Your task to perform on an android device: toggle improve location accuracy Image 0: 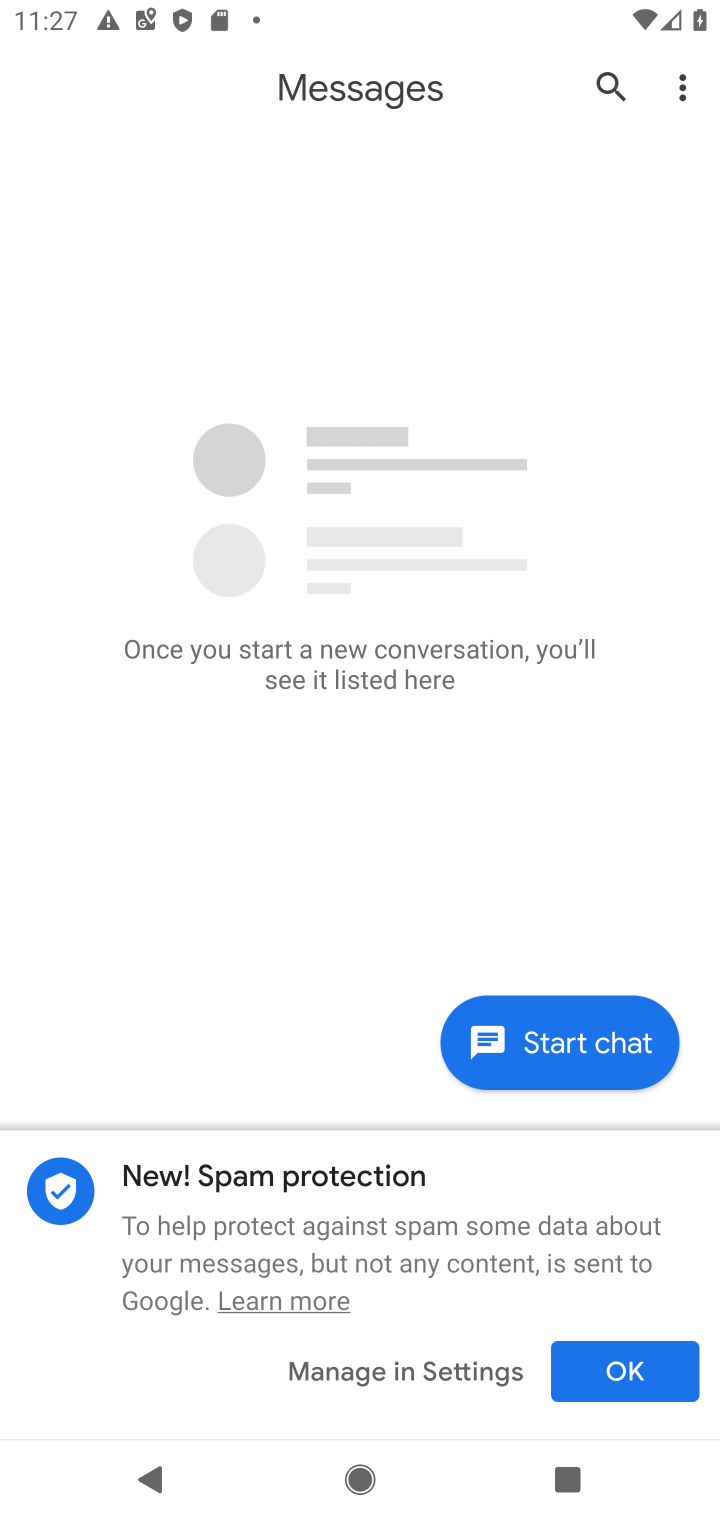
Step 0: press home button
Your task to perform on an android device: toggle improve location accuracy Image 1: 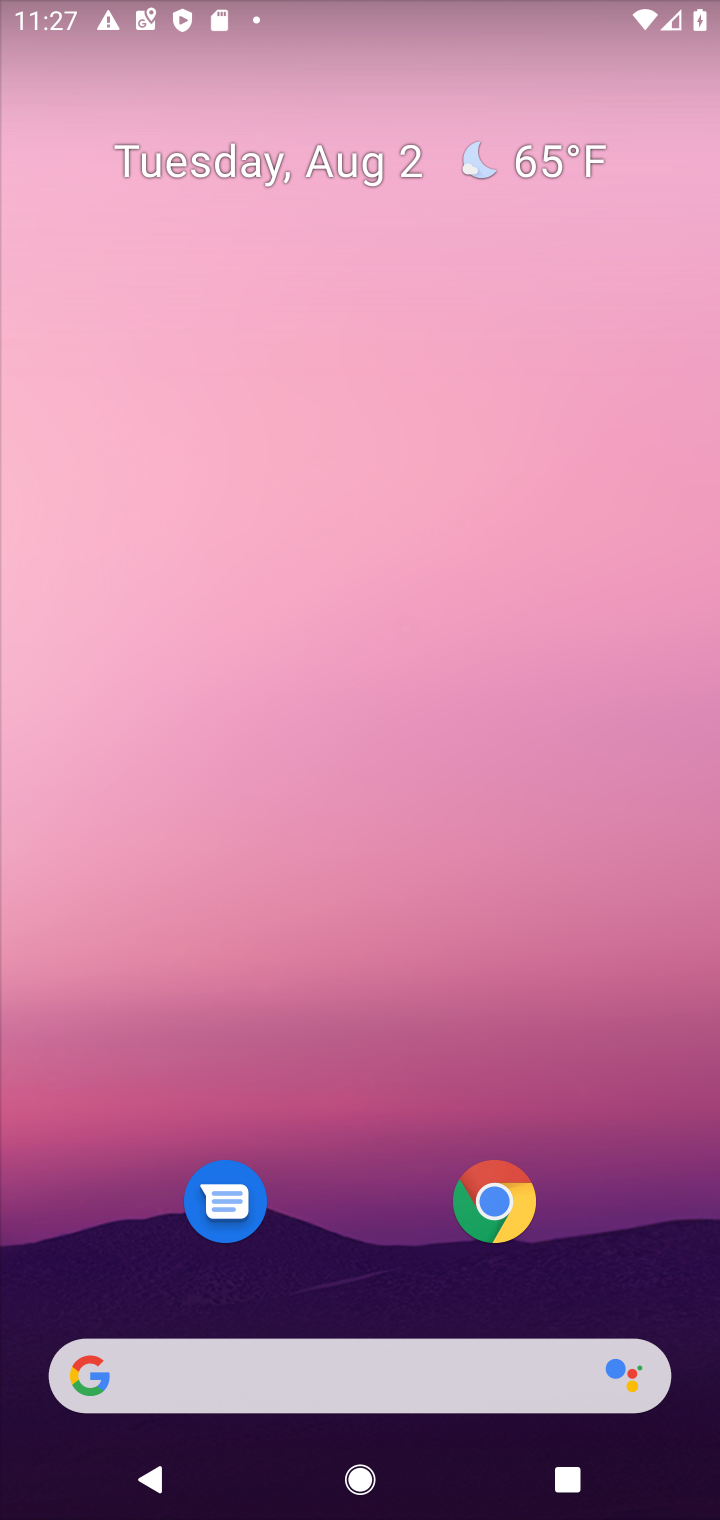
Step 1: drag from (323, 1304) to (195, 64)
Your task to perform on an android device: toggle improve location accuracy Image 2: 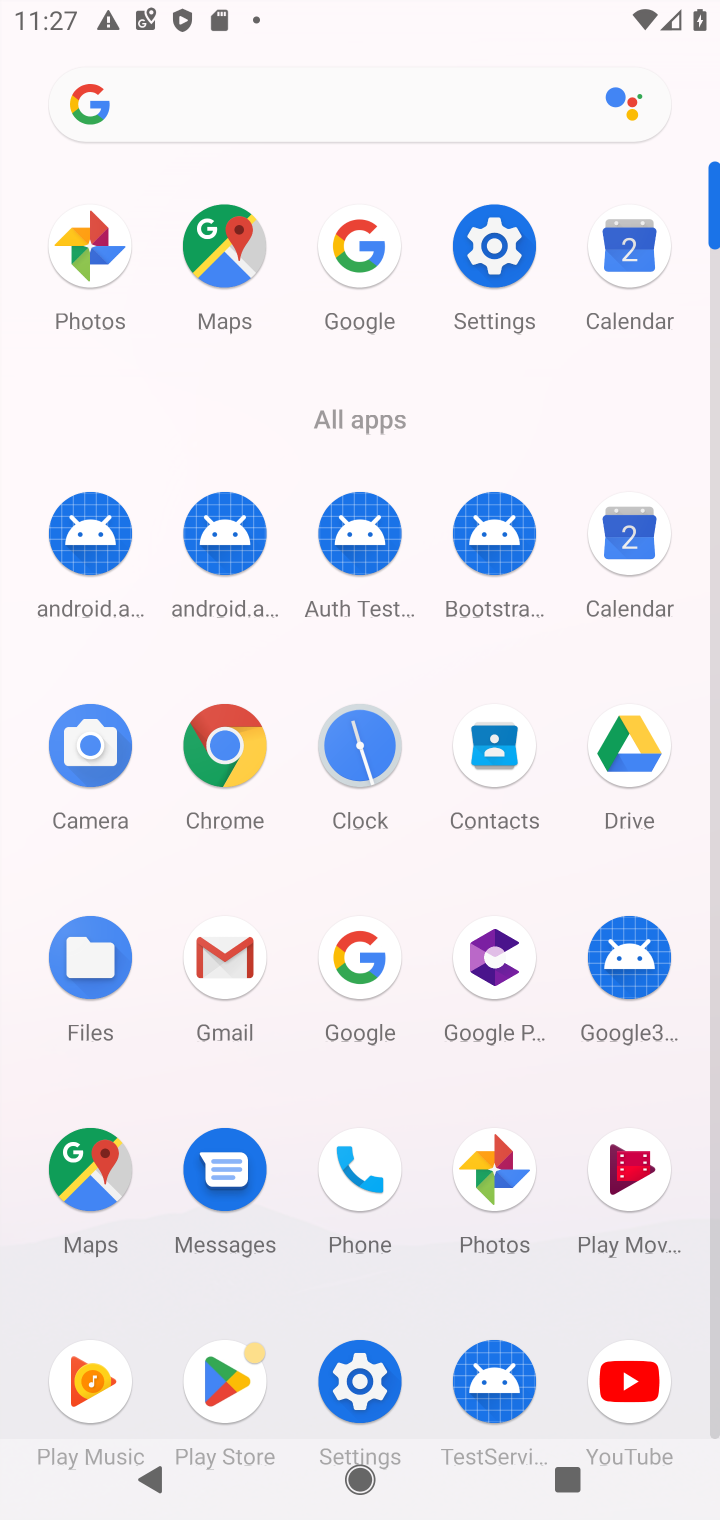
Step 2: click (488, 285)
Your task to perform on an android device: toggle improve location accuracy Image 3: 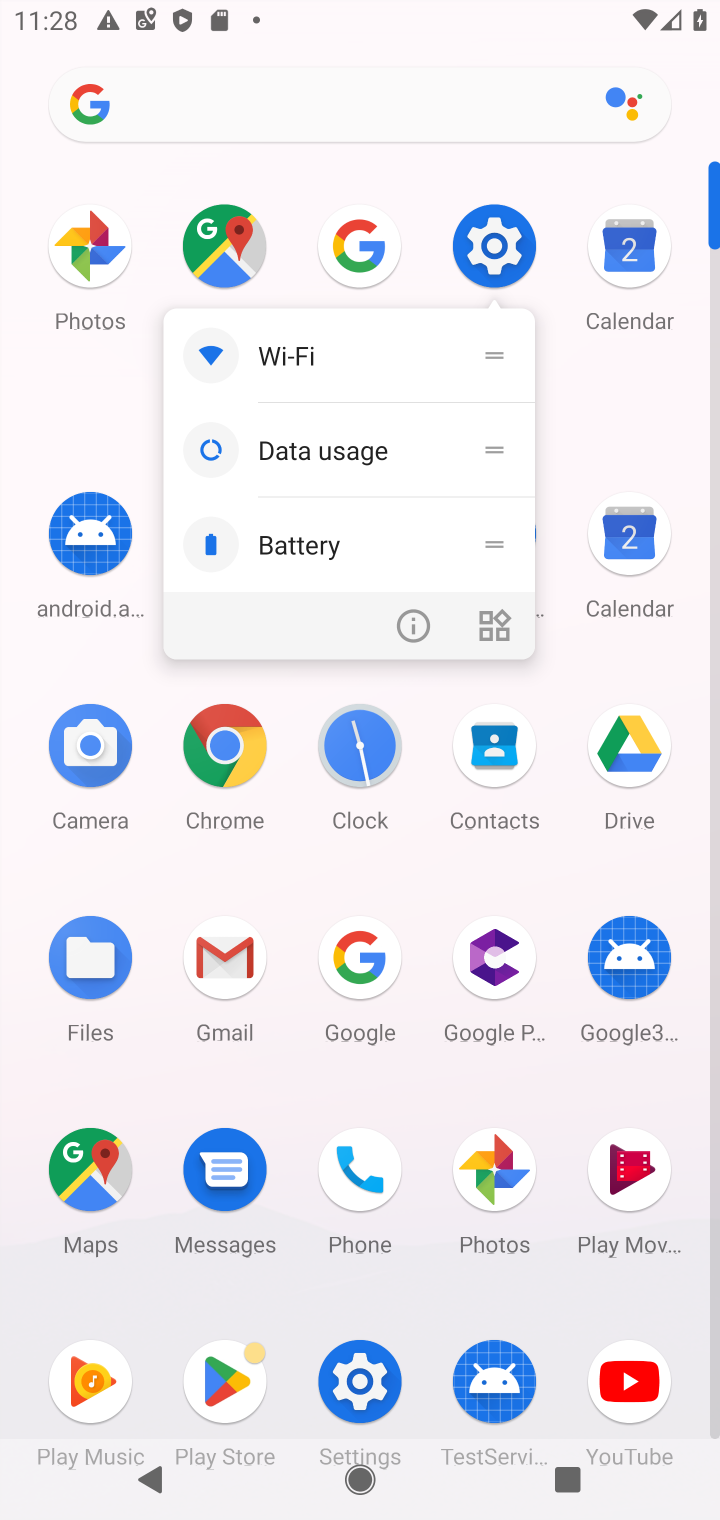
Step 3: click (324, 1356)
Your task to perform on an android device: toggle improve location accuracy Image 4: 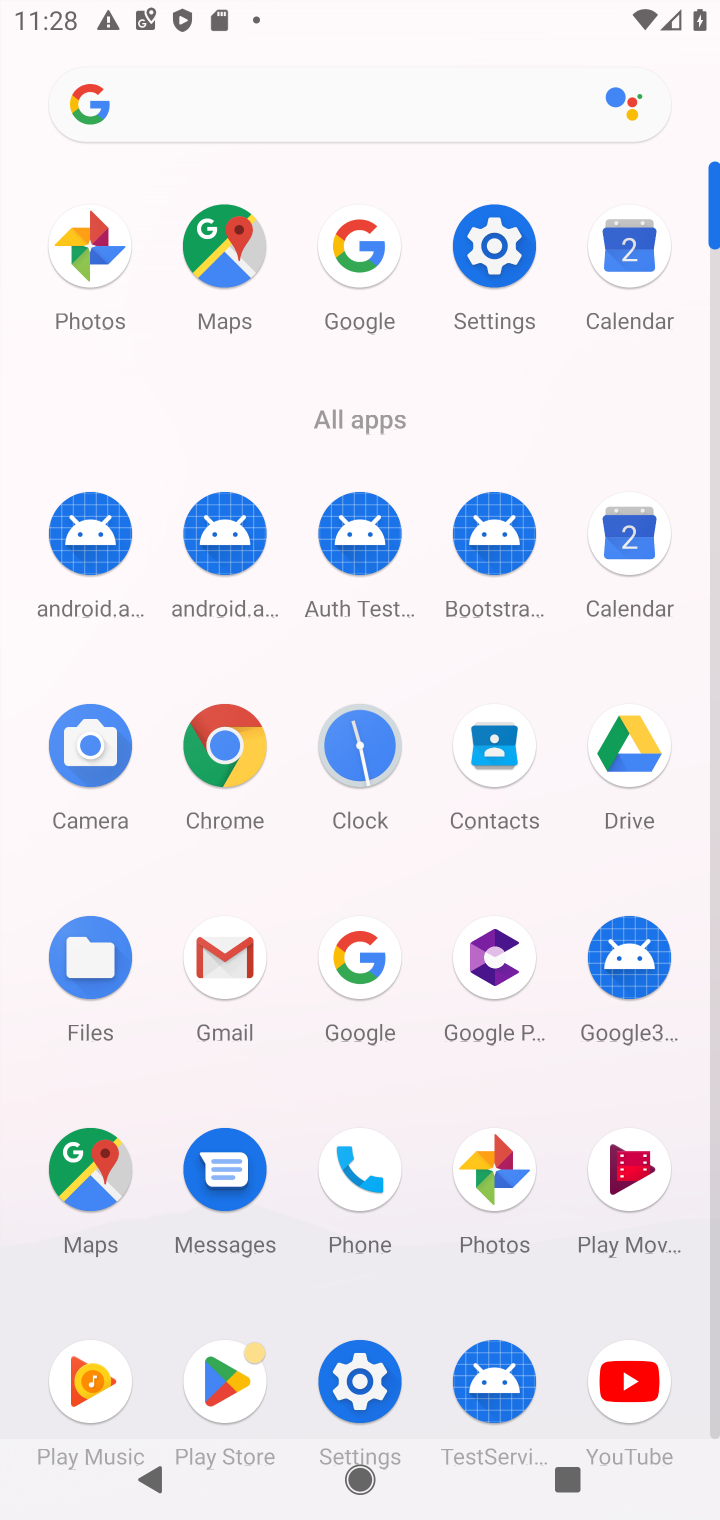
Step 4: click (349, 1369)
Your task to perform on an android device: toggle improve location accuracy Image 5: 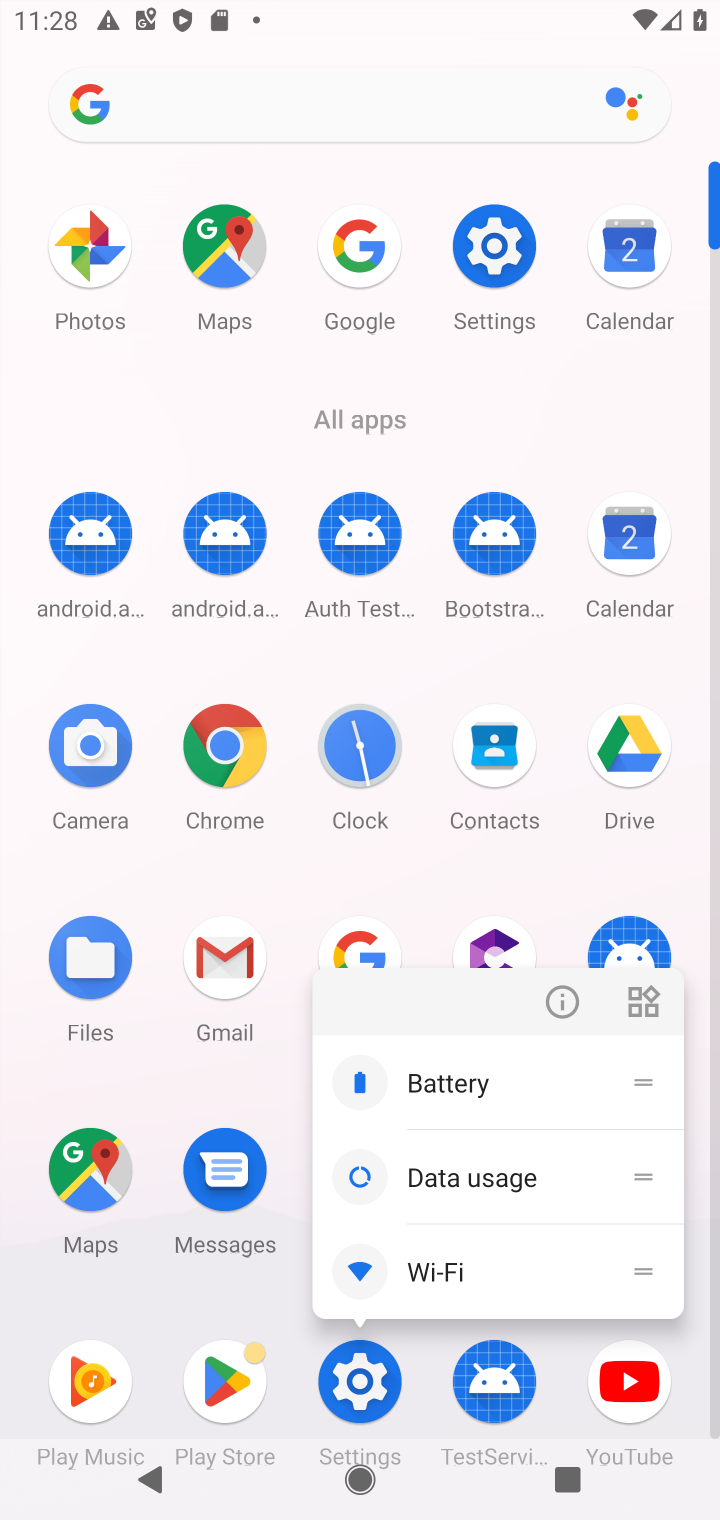
Step 5: click (356, 1367)
Your task to perform on an android device: toggle improve location accuracy Image 6: 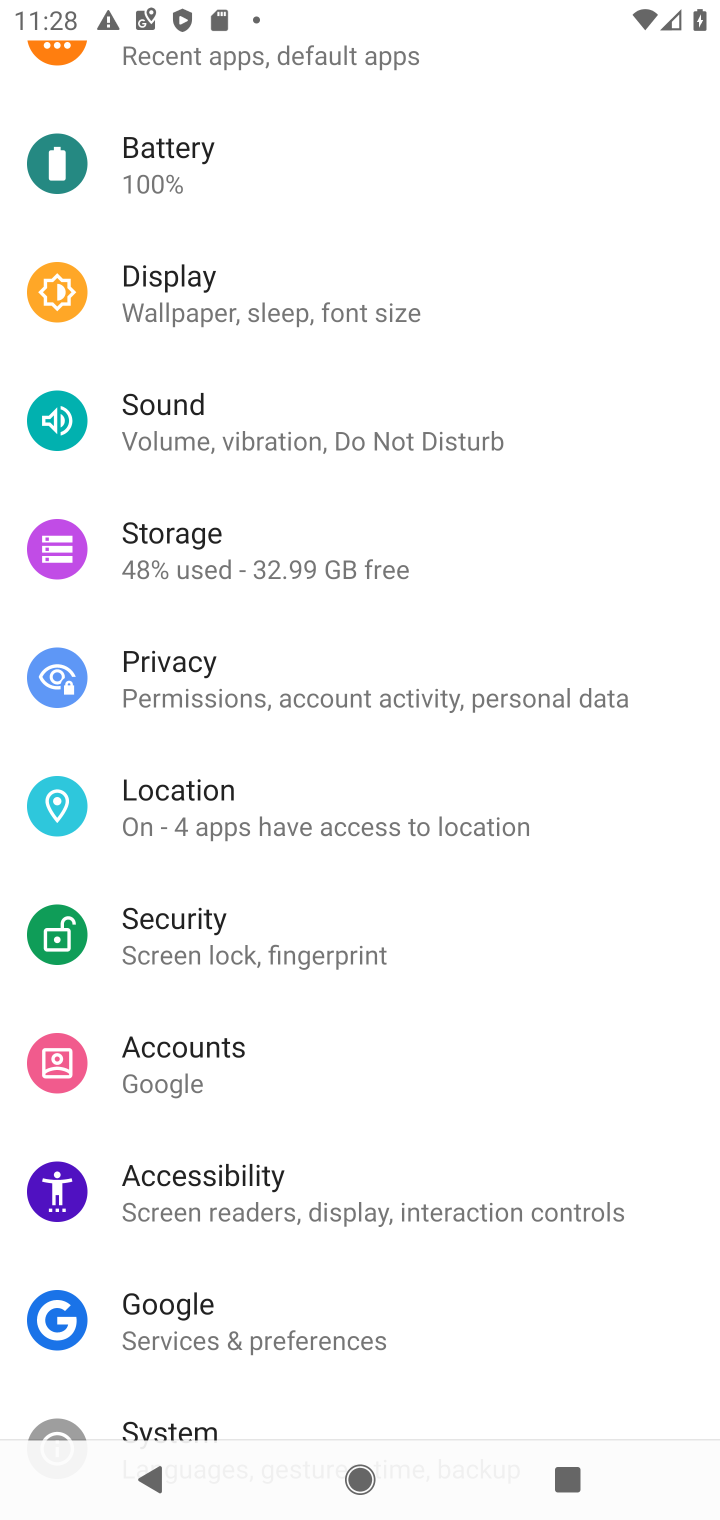
Step 6: drag from (386, 519) to (363, 791)
Your task to perform on an android device: toggle improve location accuracy Image 7: 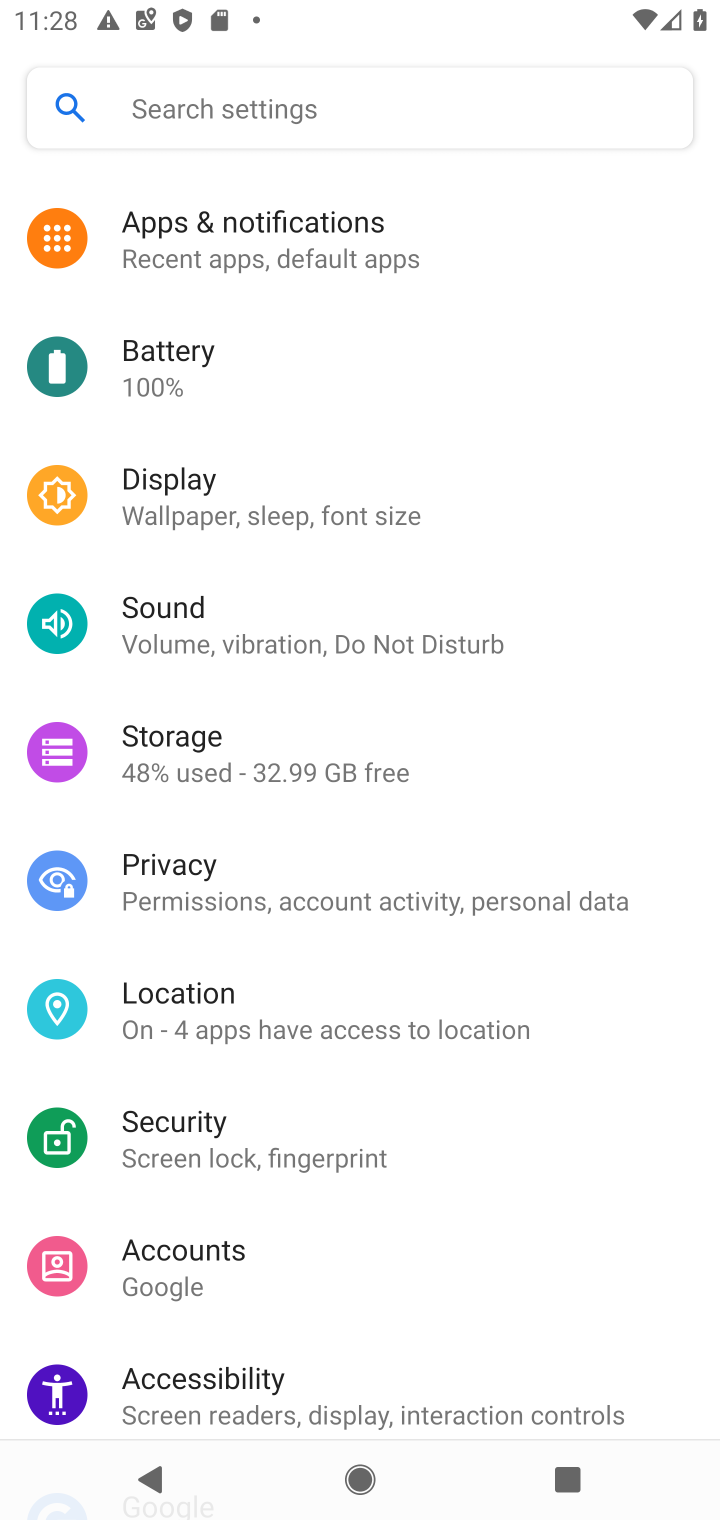
Step 7: click (148, 1024)
Your task to perform on an android device: toggle improve location accuracy Image 8: 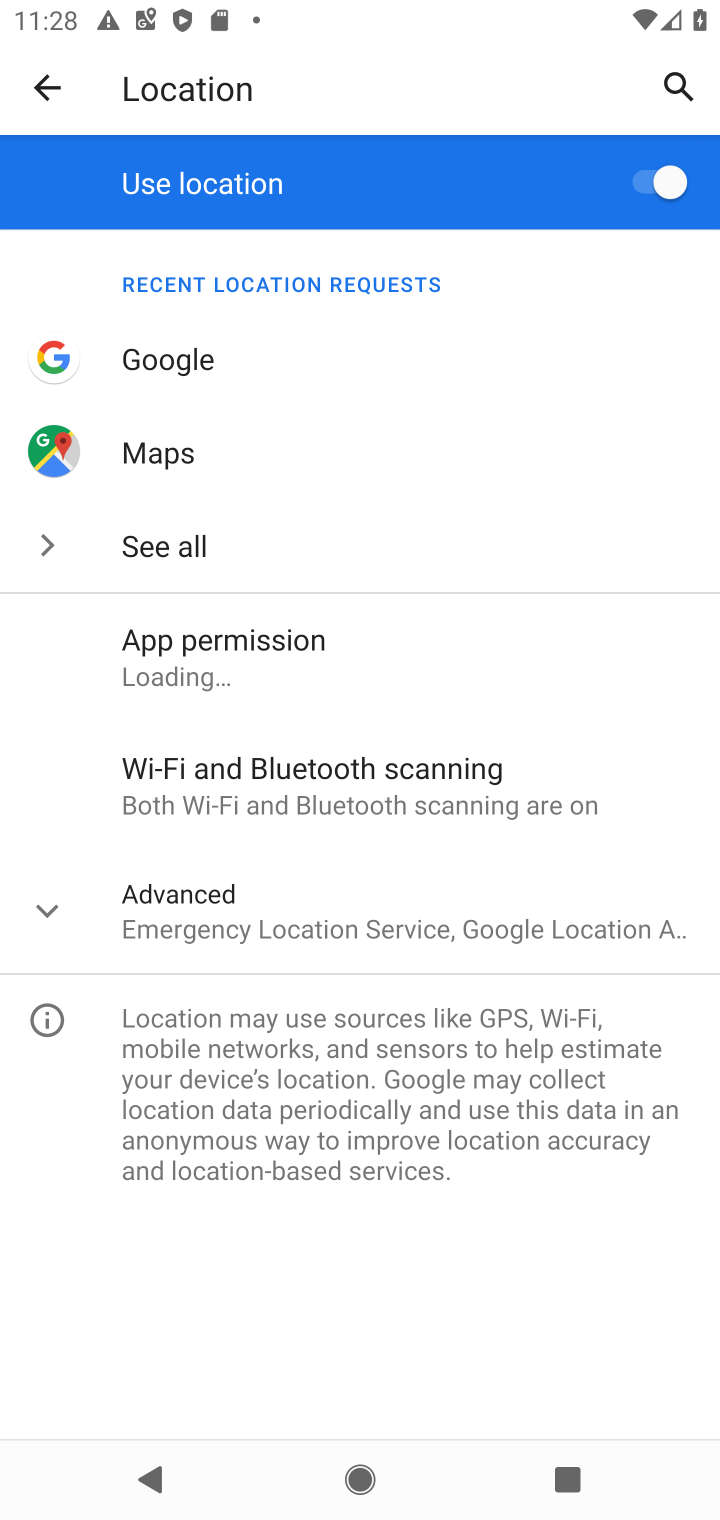
Step 8: click (247, 906)
Your task to perform on an android device: toggle improve location accuracy Image 9: 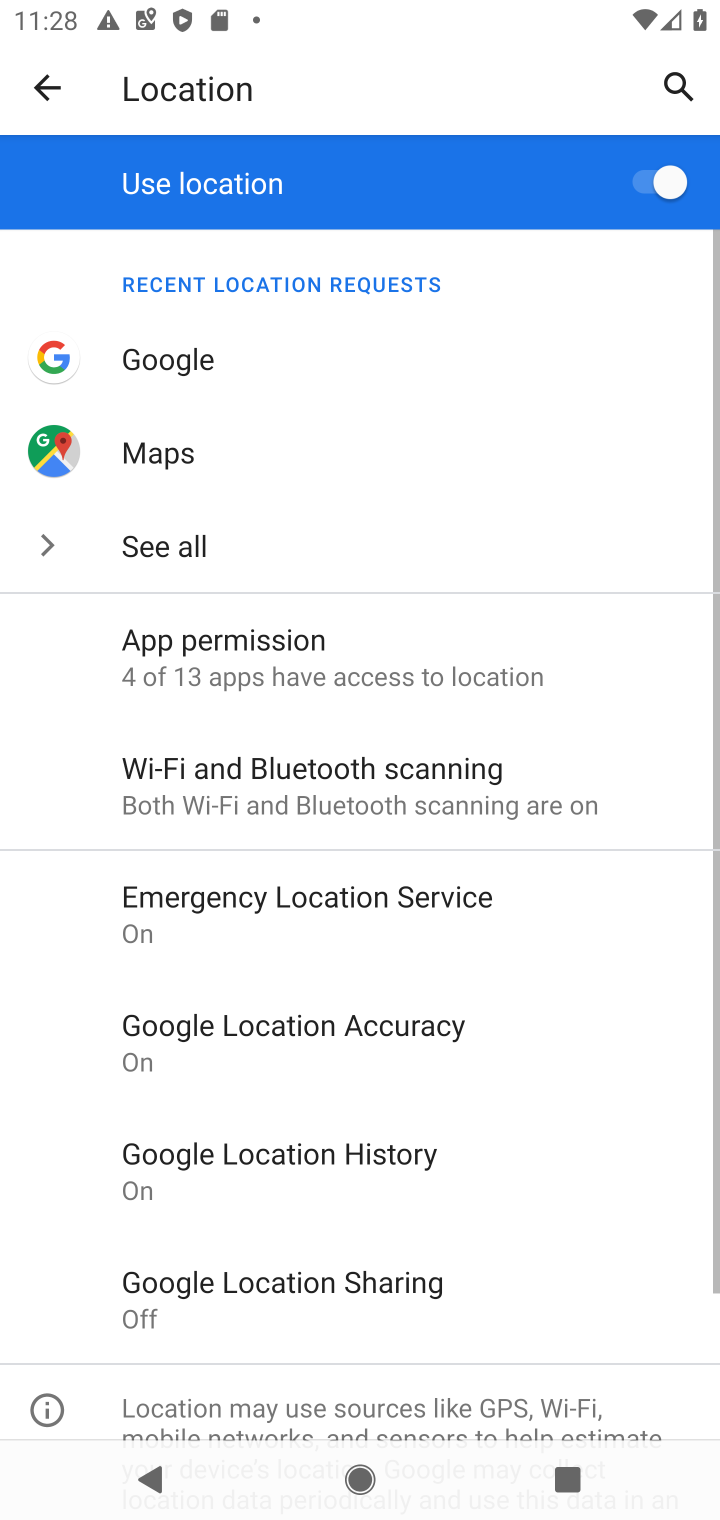
Step 9: click (429, 1026)
Your task to perform on an android device: toggle improve location accuracy Image 10: 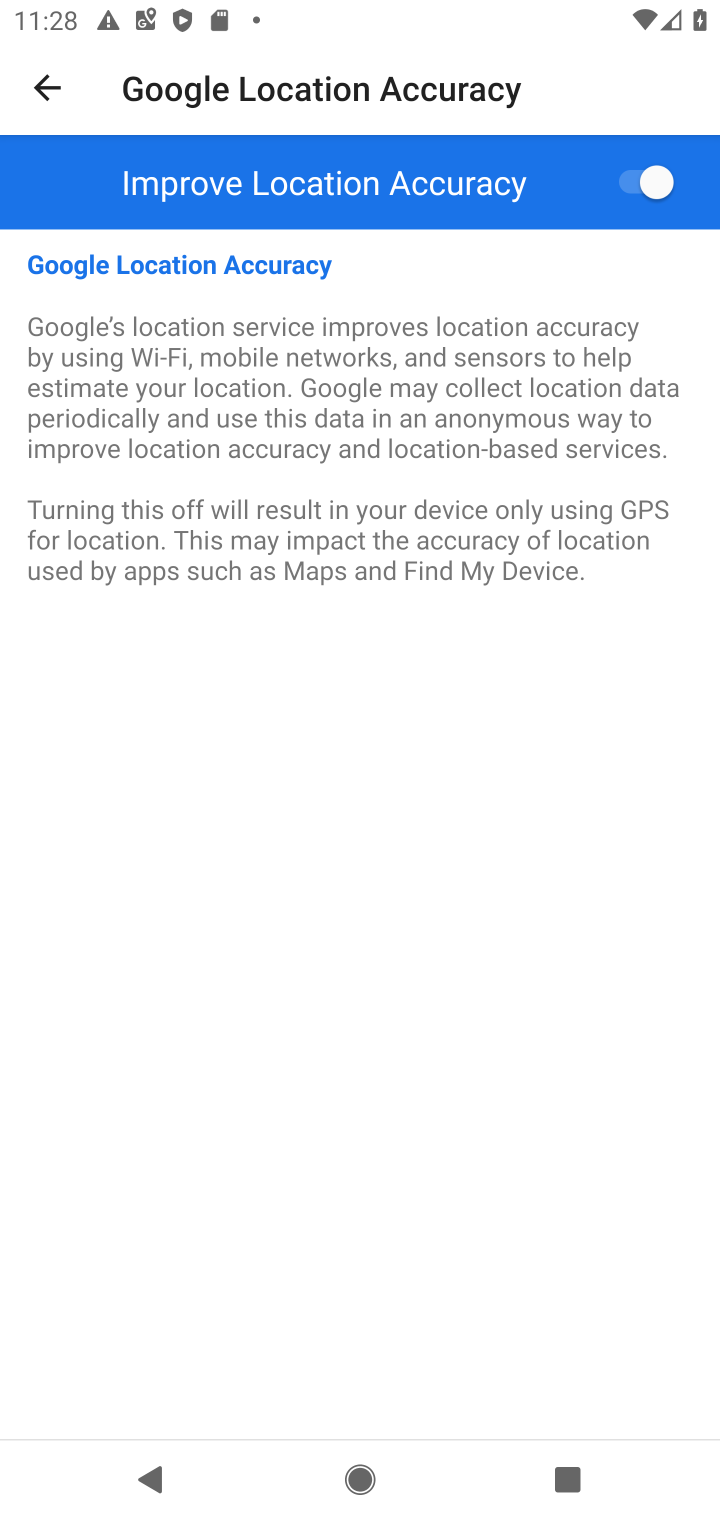
Step 10: click (638, 196)
Your task to perform on an android device: toggle improve location accuracy Image 11: 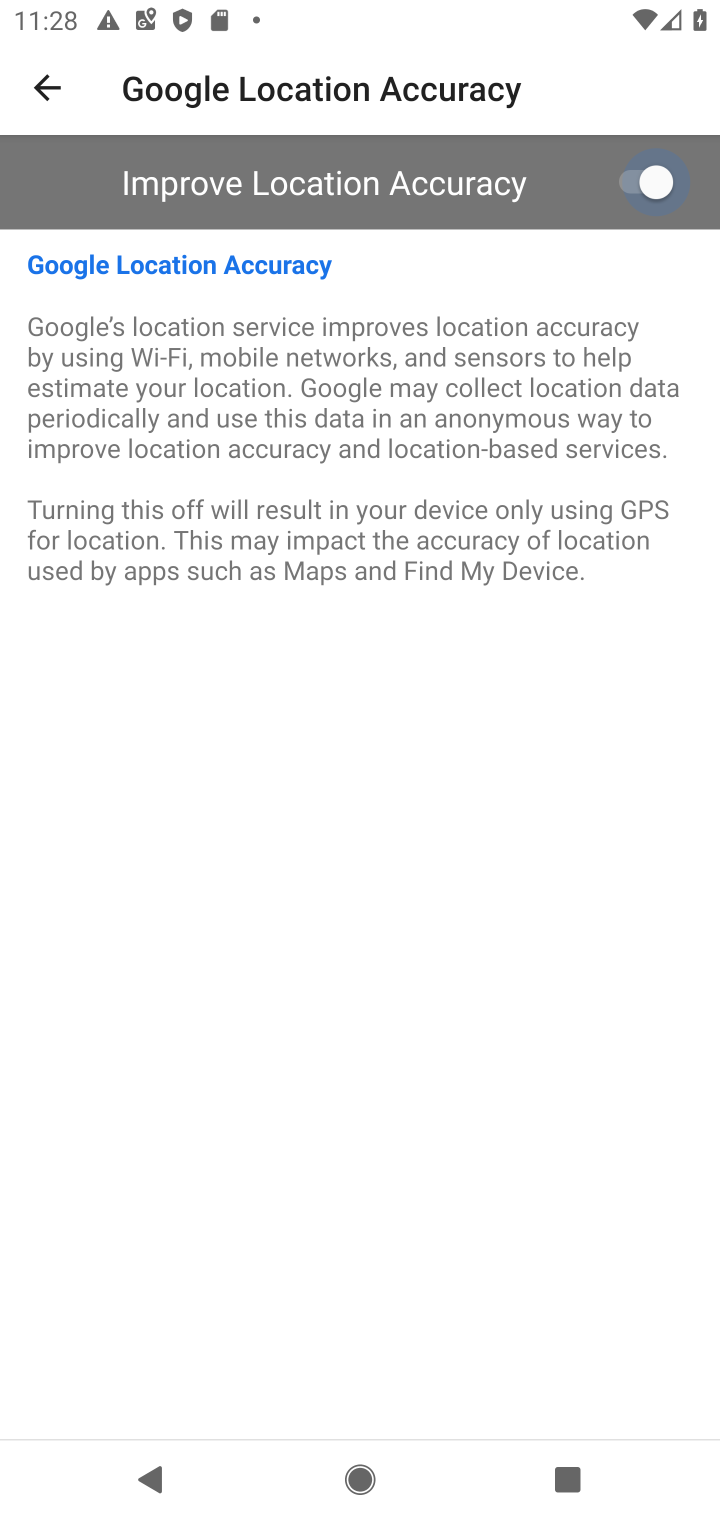
Step 11: task complete